Your task to perform on an android device: toggle javascript in the chrome app Image 0: 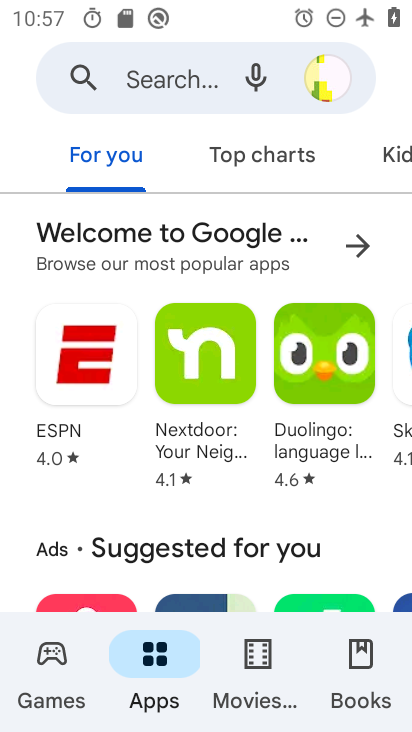
Step 0: press home button
Your task to perform on an android device: toggle javascript in the chrome app Image 1: 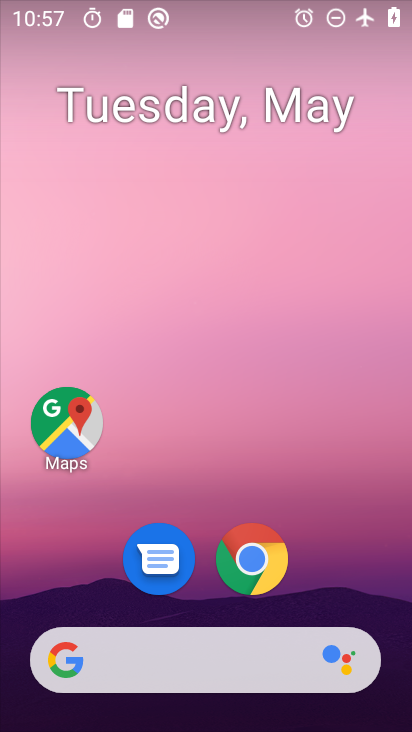
Step 1: drag from (391, 660) to (310, 66)
Your task to perform on an android device: toggle javascript in the chrome app Image 2: 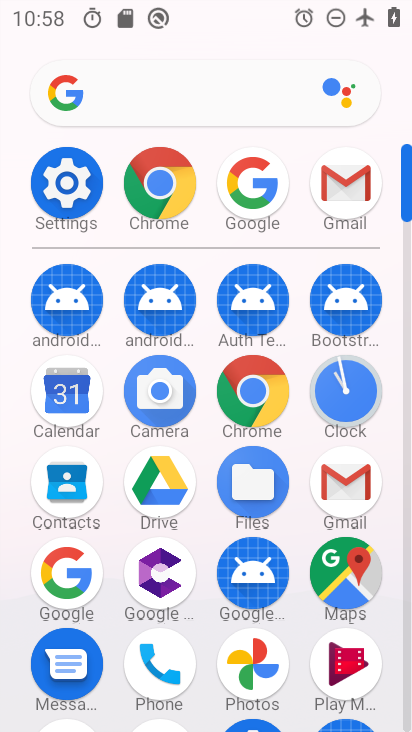
Step 2: click (250, 418)
Your task to perform on an android device: toggle javascript in the chrome app Image 3: 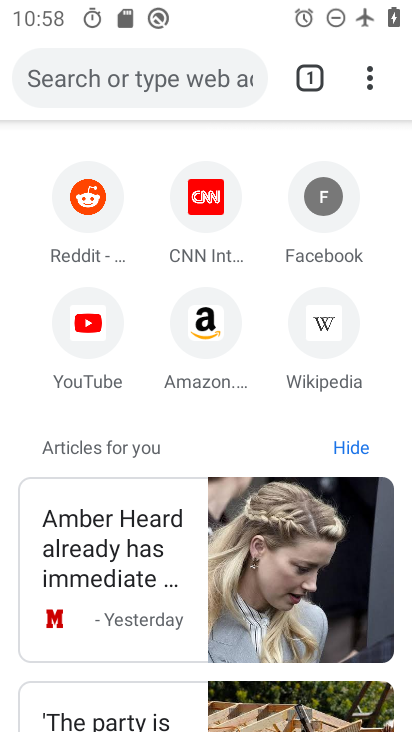
Step 3: click (383, 64)
Your task to perform on an android device: toggle javascript in the chrome app Image 4: 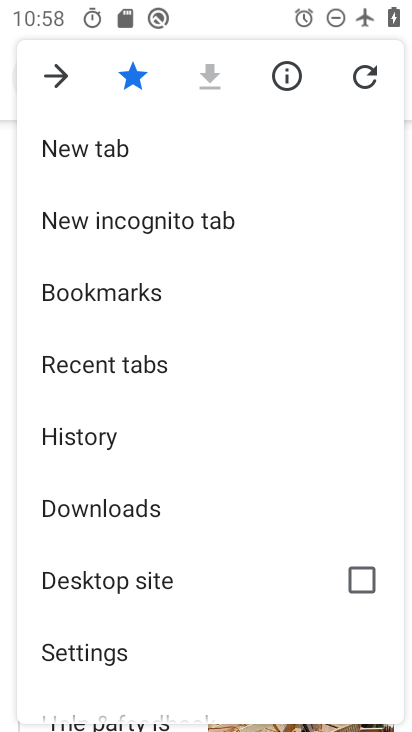
Step 4: click (108, 634)
Your task to perform on an android device: toggle javascript in the chrome app Image 5: 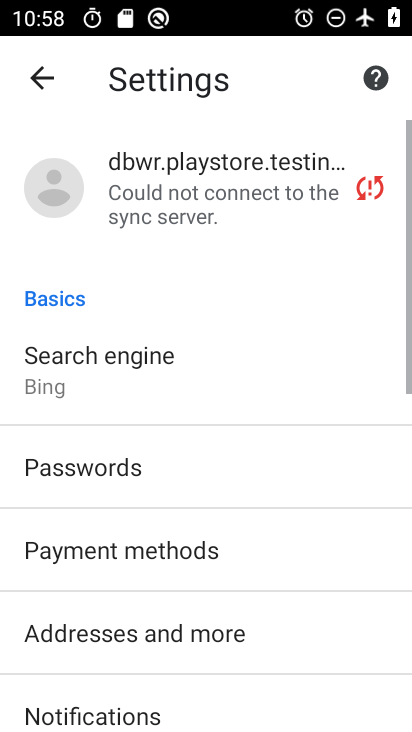
Step 5: drag from (108, 634) to (247, 43)
Your task to perform on an android device: toggle javascript in the chrome app Image 6: 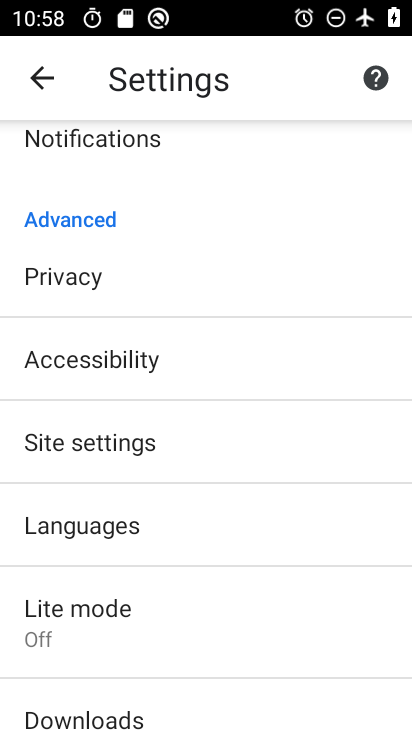
Step 6: click (68, 430)
Your task to perform on an android device: toggle javascript in the chrome app Image 7: 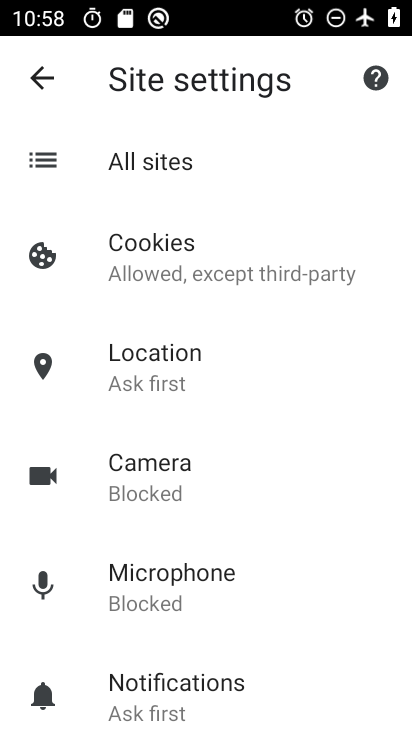
Step 7: drag from (138, 702) to (244, 171)
Your task to perform on an android device: toggle javascript in the chrome app Image 8: 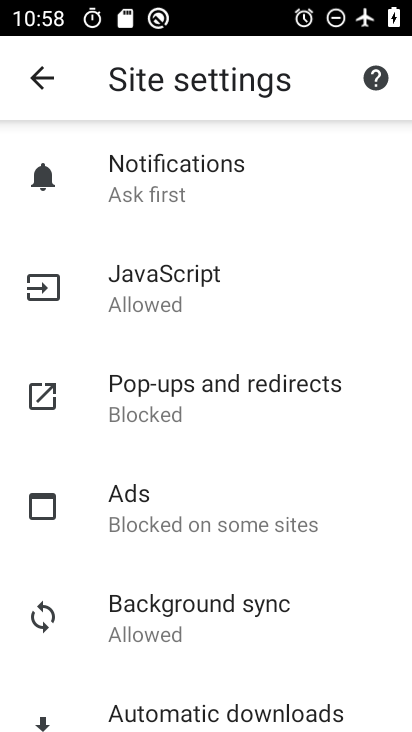
Step 8: click (155, 300)
Your task to perform on an android device: toggle javascript in the chrome app Image 9: 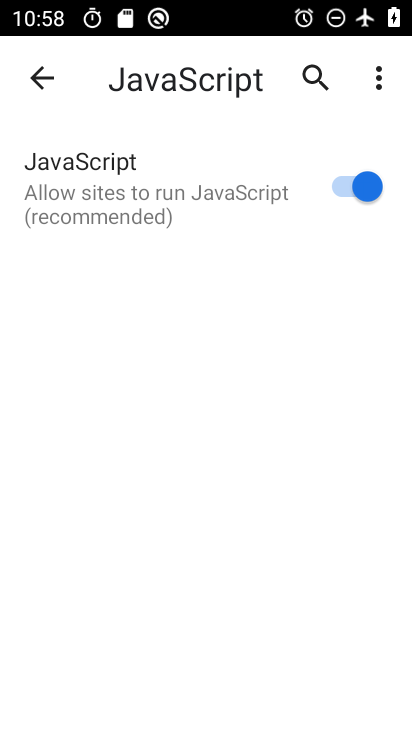
Step 9: click (353, 212)
Your task to perform on an android device: toggle javascript in the chrome app Image 10: 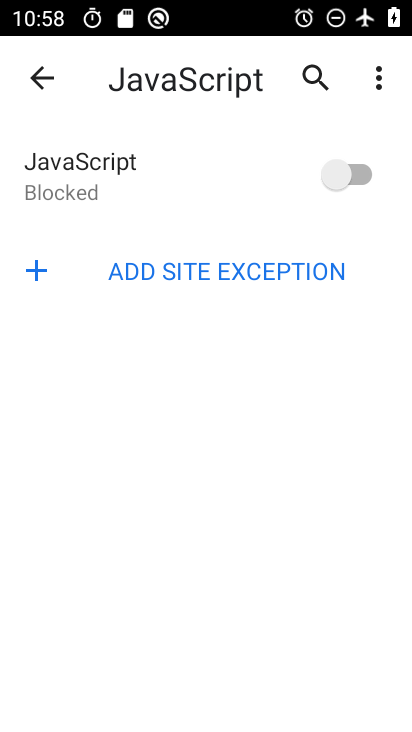
Step 10: task complete